Your task to perform on an android device: Open CNN.com Image 0: 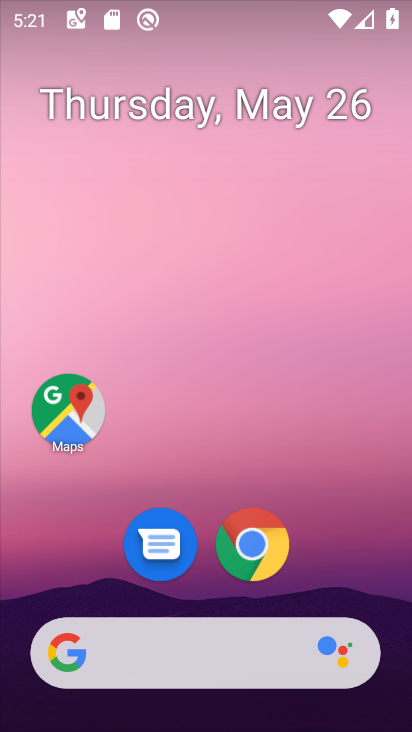
Step 0: click (248, 544)
Your task to perform on an android device: Open CNN.com Image 1: 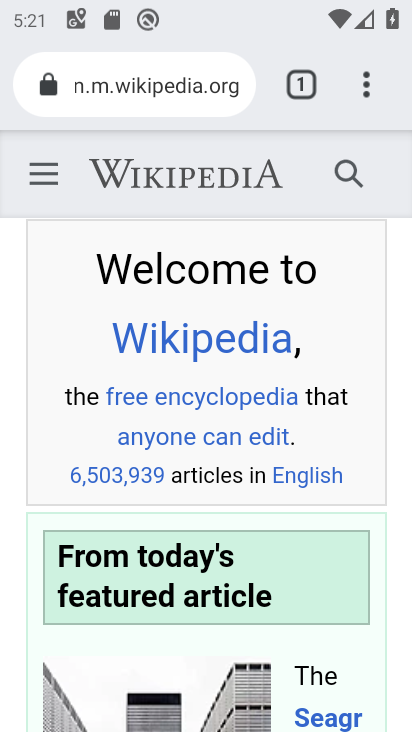
Step 1: click (218, 97)
Your task to perform on an android device: Open CNN.com Image 2: 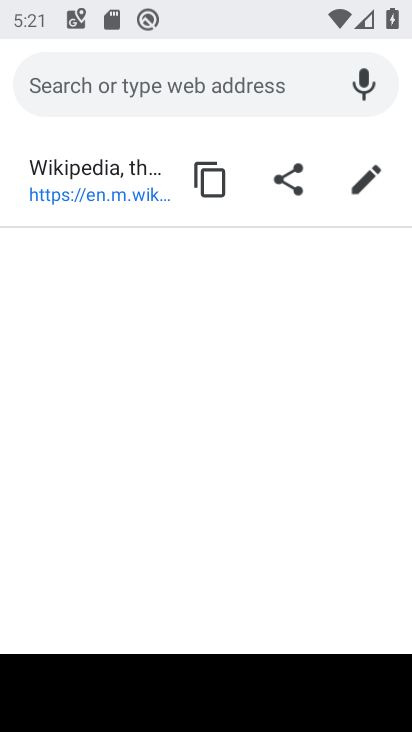
Step 2: type "CNN.com"
Your task to perform on an android device: Open CNN.com Image 3: 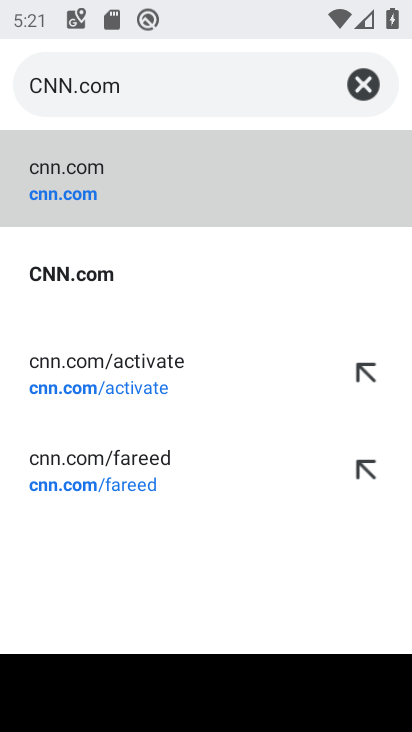
Step 3: click (231, 280)
Your task to perform on an android device: Open CNN.com Image 4: 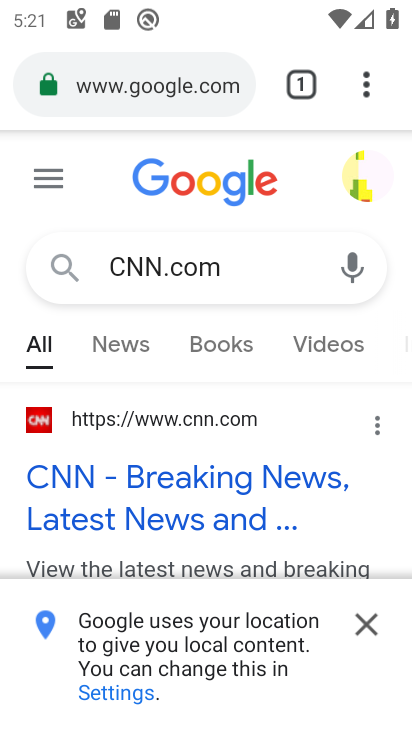
Step 4: click (173, 501)
Your task to perform on an android device: Open CNN.com Image 5: 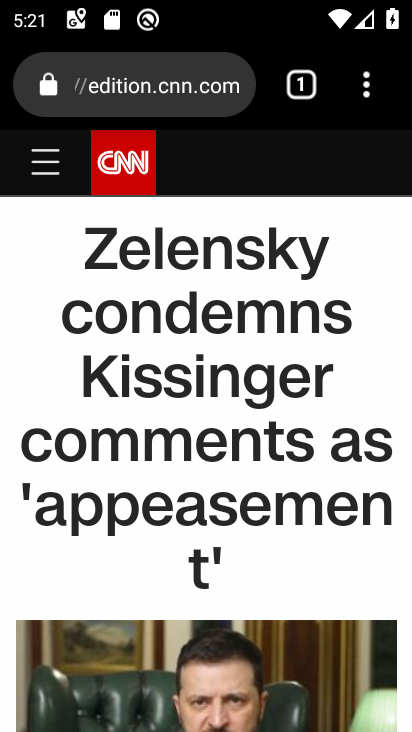
Step 5: task complete